Your task to perform on an android device: Show me the alarms in the clock app Image 0: 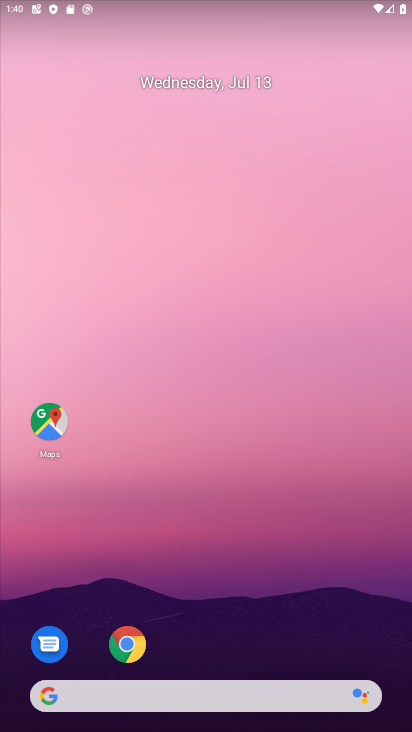
Step 0: drag from (254, 647) to (286, 200)
Your task to perform on an android device: Show me the alarms in the clock app Image 1: 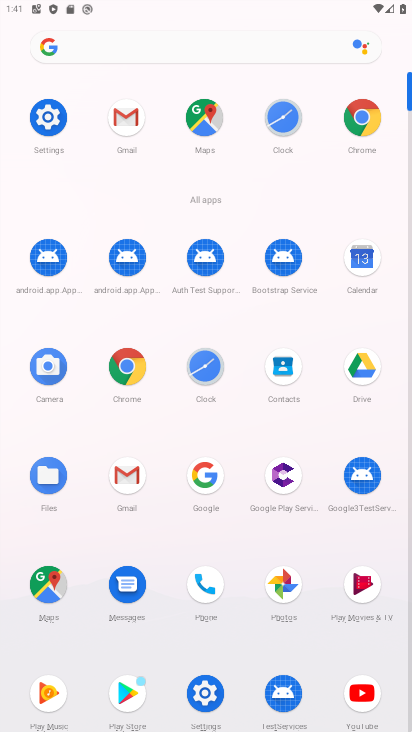
Step 1: click (218, 378)
Your task to perform on an android device: Show me the alarms in the clock app Image 2: 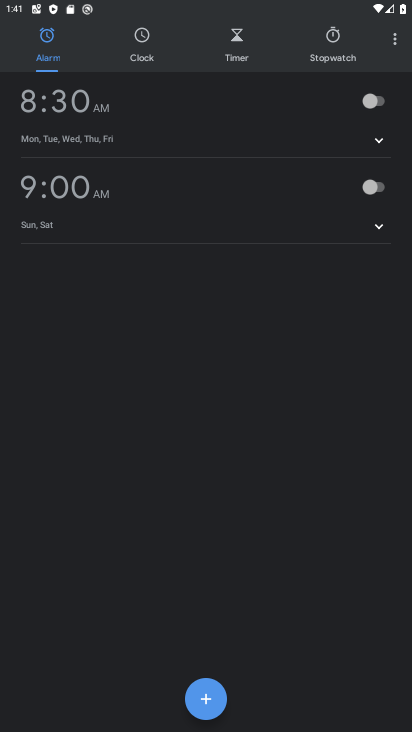
Step 2: task complete